Your task to perform on an android device: Open the phone app and click the voicemail tab. Image 0: 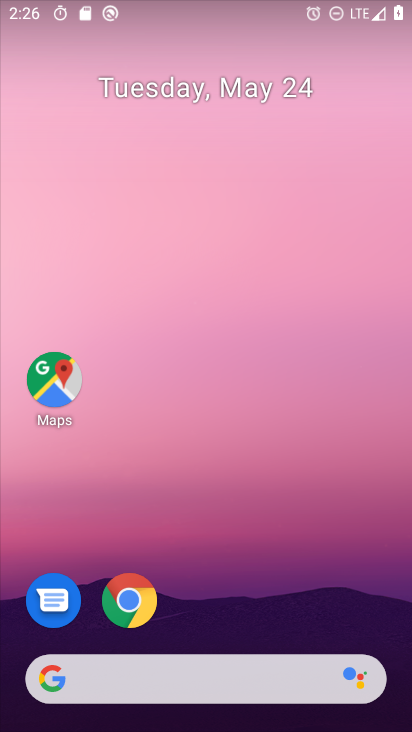
Step 0: drag from (277, 578) to (293, 140)
Your task to perform on an android device: Open the phone app and click the voicemail tab. Image 1: 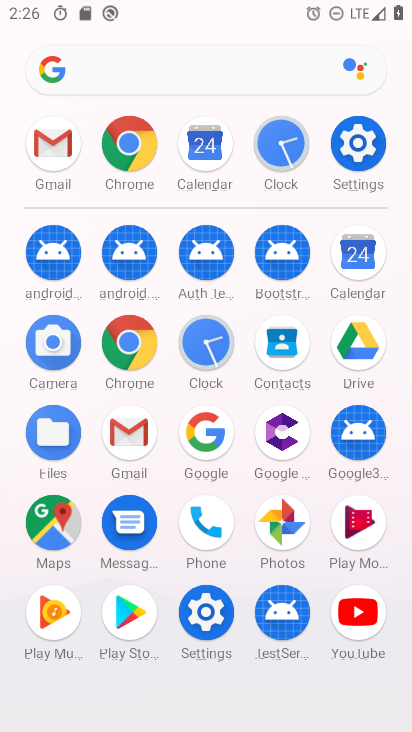
Step 1: click (211, 521)
Your task to perform on an android device: Open the phone app and click the voicemail tab. Image 2: 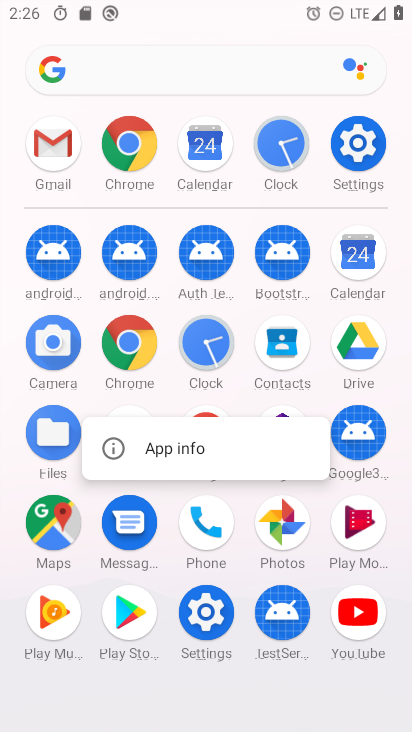
Step 2: click (214, 517)
Your task to perform on an android device: Open the phone app and click the voicemail tab. Image 3: 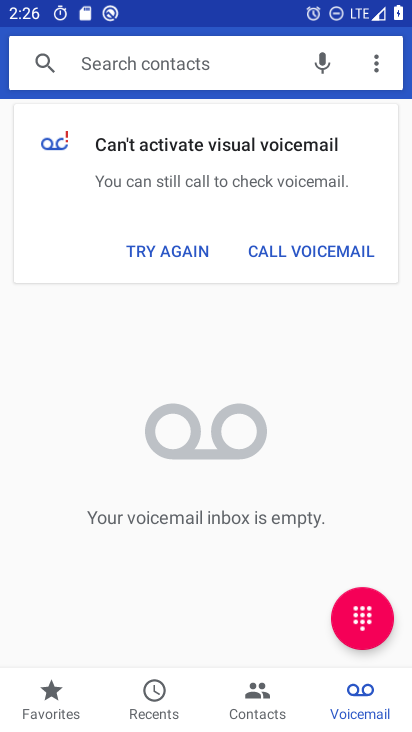
Step 3: click (363, 698)
Your task to perform on an android device: Open the phone app and click the voicemail tab. Image 4: 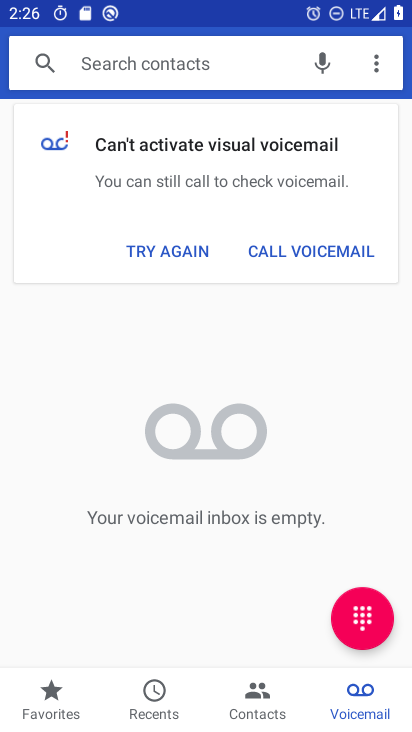
Step 4: task complete